Your task to perform on an android device: clear all cookies in the chrome app Image 0: 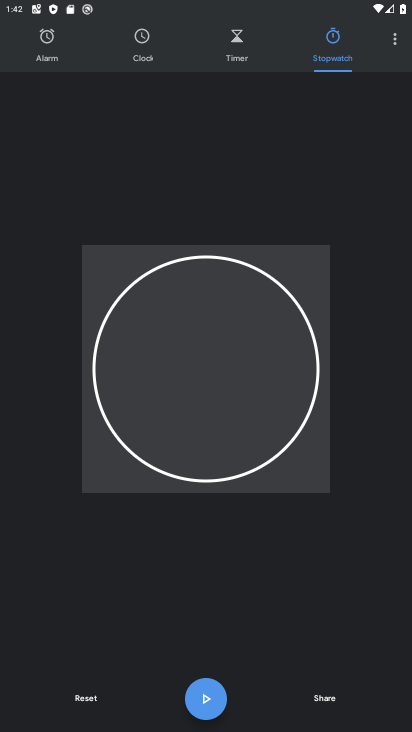
Step 0: press home button
Your task to perform on an android device: clear all cookies in the chrome app Image 1: 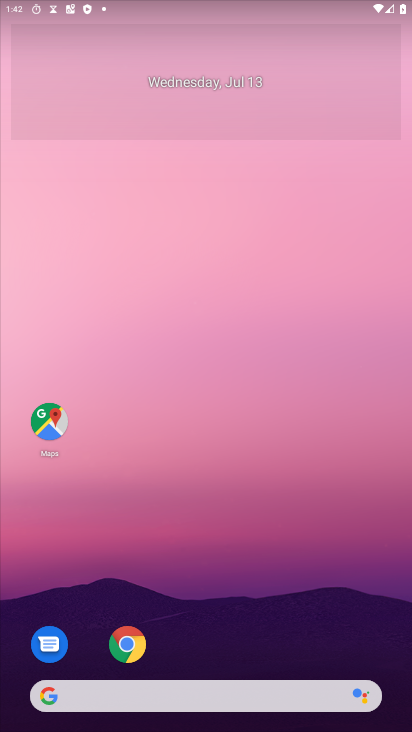
Step 1: click (137, 632)
Your task to perform on an android device: clear all cookies in the chrome app Image 2: 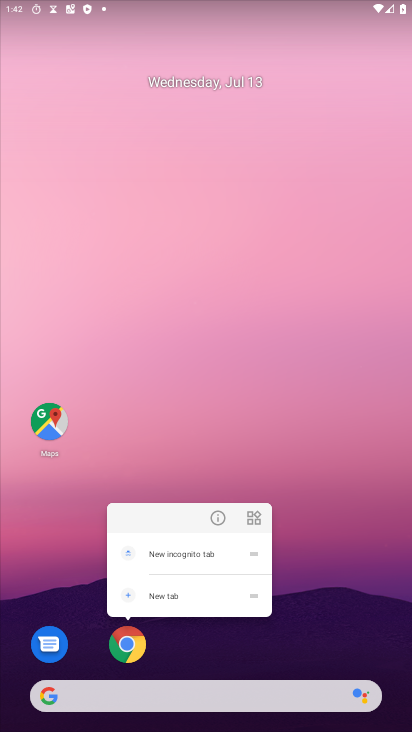
Step 2: click (136, 636)
Your task to perform on an android device: clear all cookies in the chrome app Image 3: 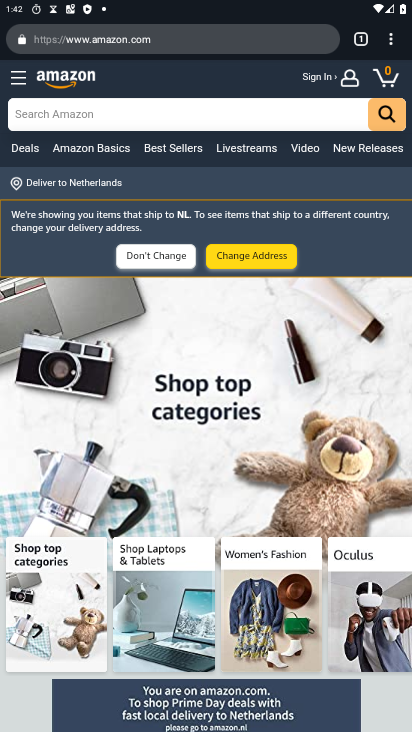
Step 3: drag from (387, 44) to (254, 474)
Your task to perform on an android device: clear all cookies in the chrome app Image 4: 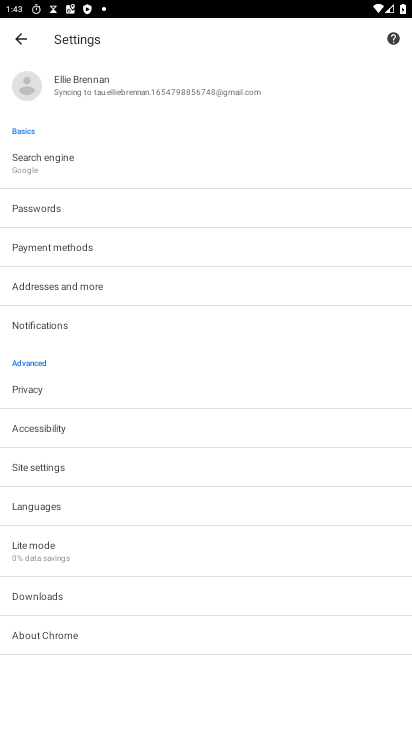
Step 4: click (18, 386)
Your task to perform on an android device: clear all cookies in the chrome app Image 5: 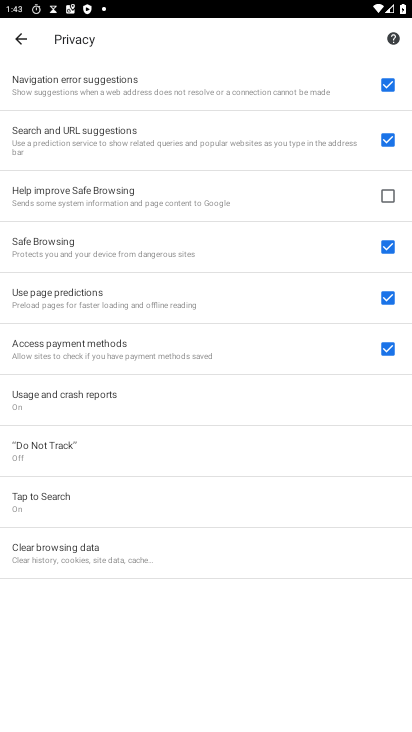
Step 5: click (55, 556)
Your task to perform on an android device: clear all cookies in the chrome app Image 6: 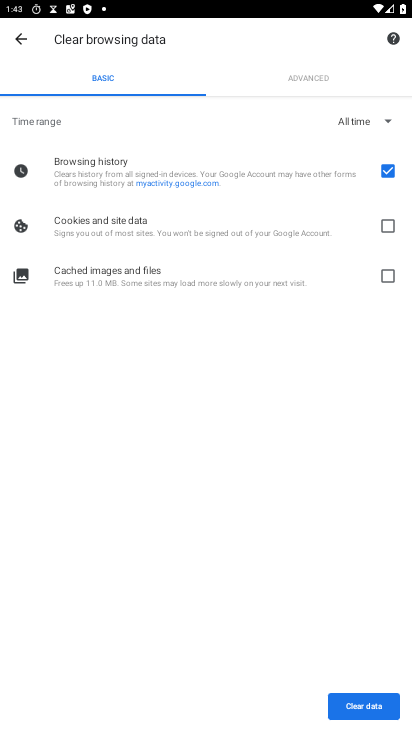
Step 6: click (389, 229)
Your task to perform on an android device: clear all cookies in the chrome app Image 7: 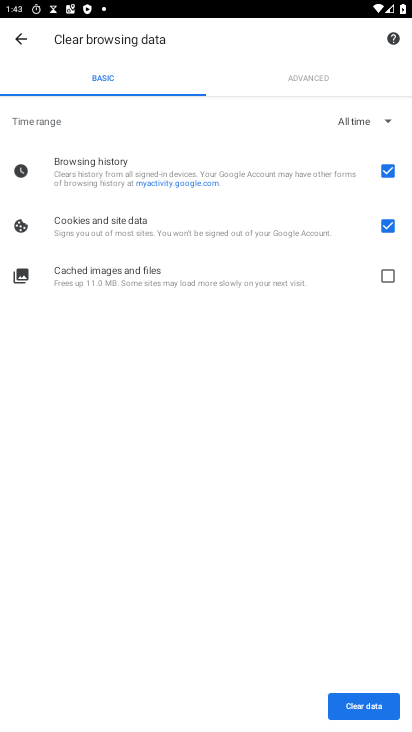
Step 7: click (388, 169)
Your task to perform on an android device: clear all cookies in the chrome app Image 8: 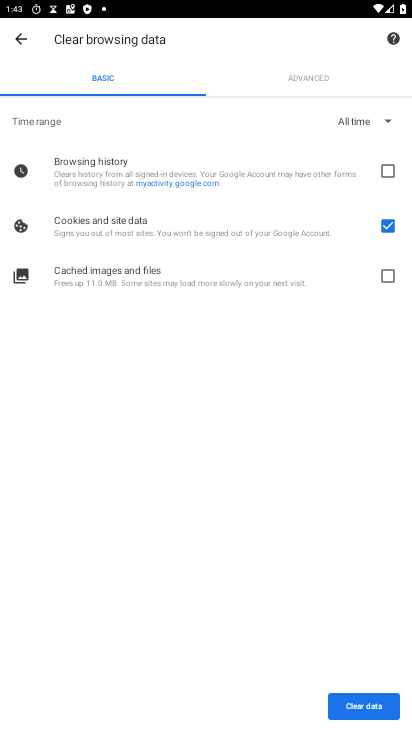
Step 8: click (385, 722)
Your task to perform on an android device: clear all cookies in the chrome app Image 9: 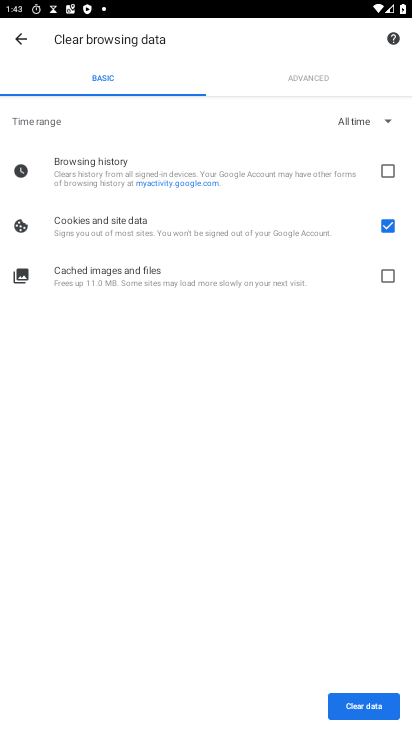
Step 9: click (380, 704)
Your task to perform on an android device: clear all cookies in the chrome app Image 10: 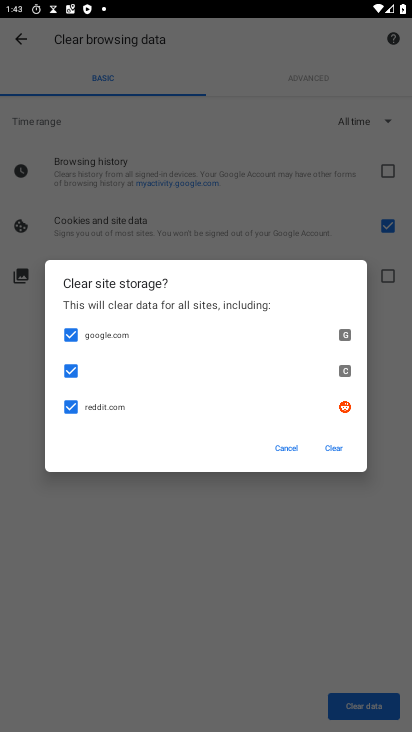
Step 10: click (327, 449)
Your task to perform on an android device: clear all cookies in the chrome app Image 11: 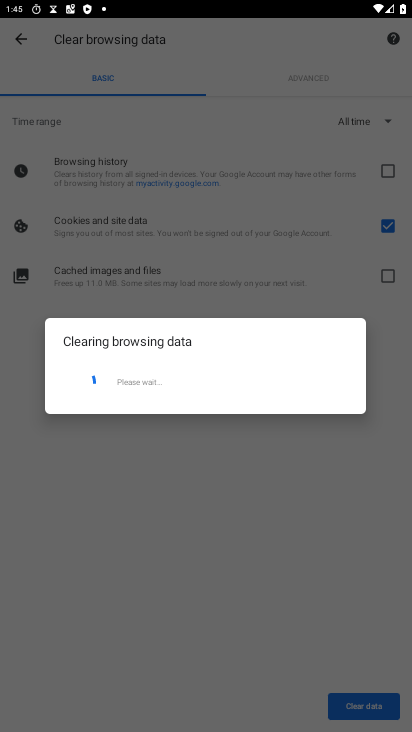
Step 11: task complete